Your task to perform on an android device: Open Amazon Image 0: 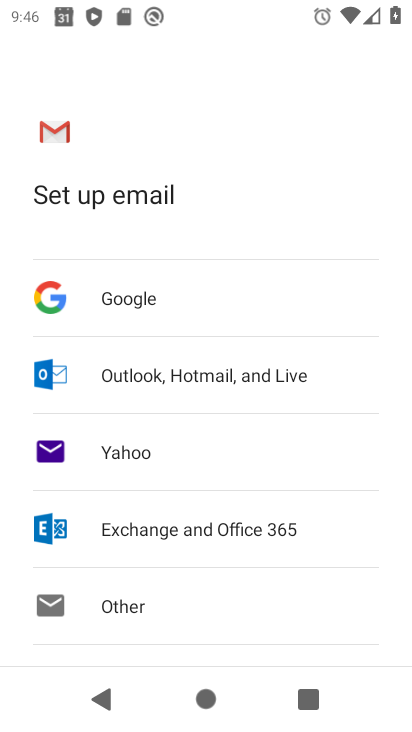
Step 0: press home button
Your task to perform on an android device: Open Amazon Image 1: 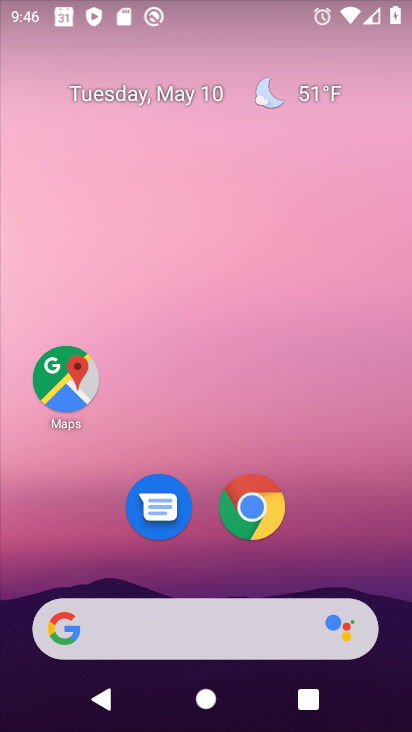
Step 1: click (262, 492)
Your task to perform on an android device: Open Amazon Image 2: 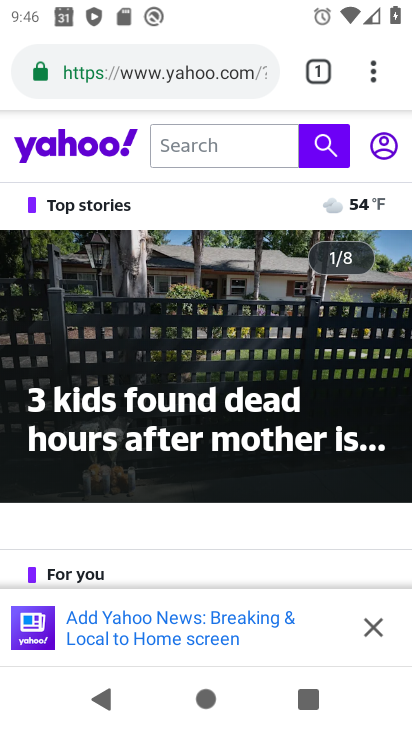
Step 2: click (358, 72)
Your task to perform on an android device: Open Amazon Image 3: 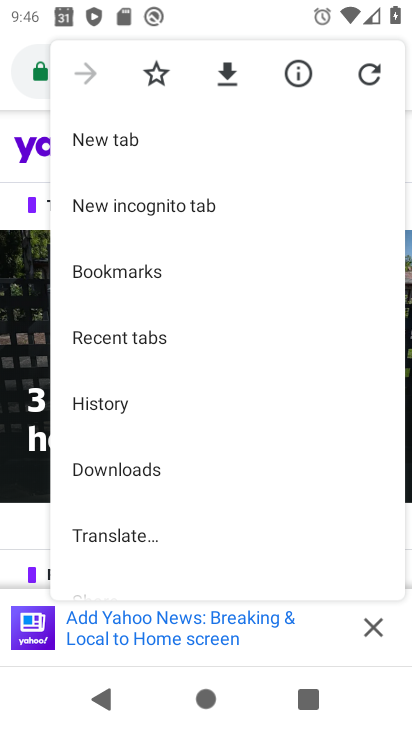
Step 3: click (124, 133)
Your task to perform on an android device: Open Amazon Image 4: 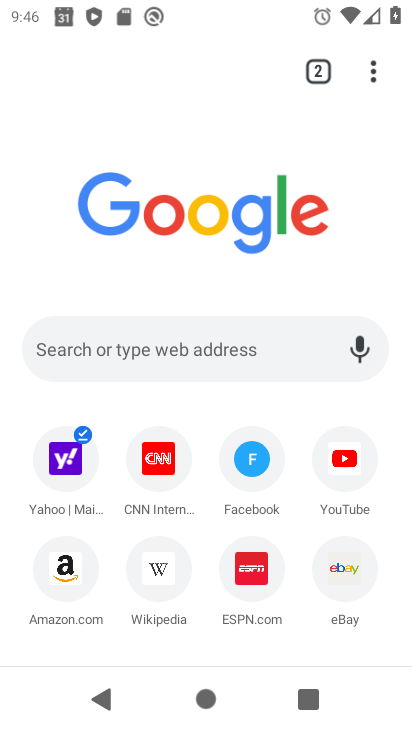
Step 4: click (56, 585)
Your task to perform on an android device: Open Amazon Image 5: 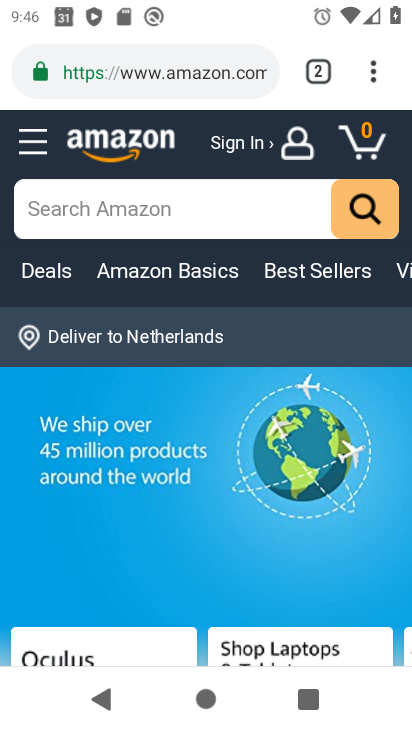
Step 5: task complete